Your task to perform on an android device: turn on airplane mode Image 0: 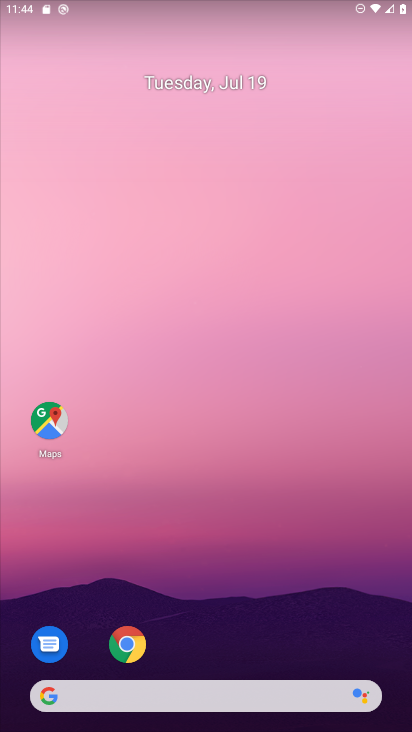
Step 0: drag from (282, 284) to (300, 224)
Your task to perform on an android device: turn on airplane mode Image 1: 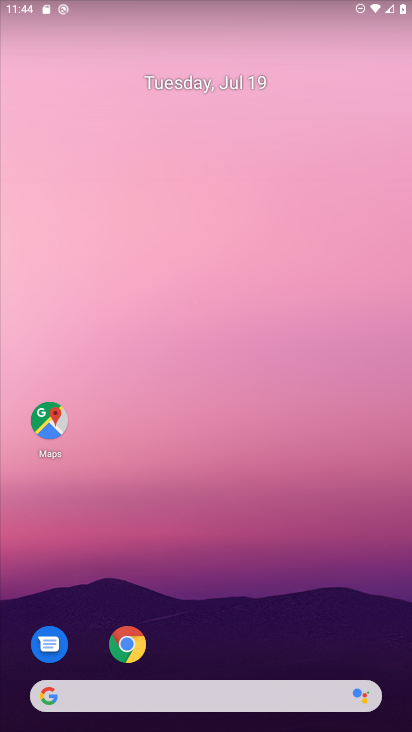
Step 1: drag from (15, 695) to (257, 78)
Your task to perform on an android device: turn on airplane mode Image 2: 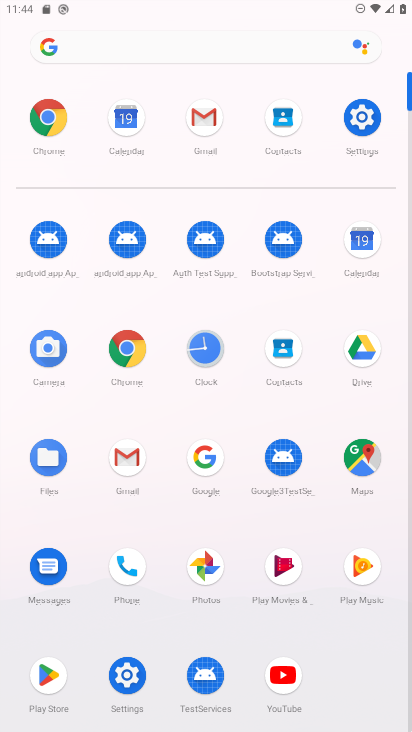
Step 2: click (123, 684)
Your task to perform on an android device: turn on airplane mode Image 3: 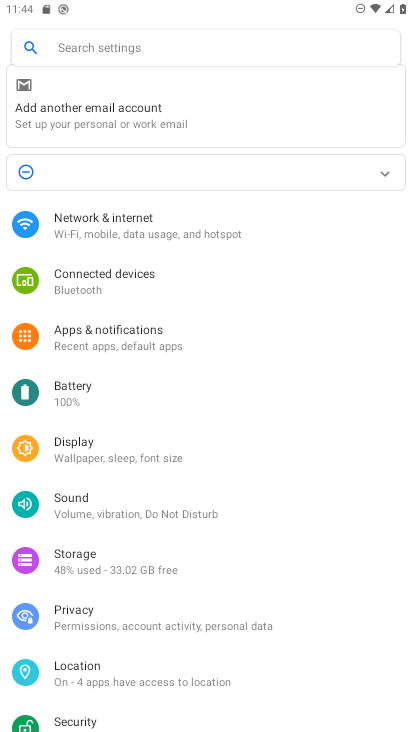
Step 3: click (145, 209)
Your task to perform on an android device: turn on airplane mode Image 4: 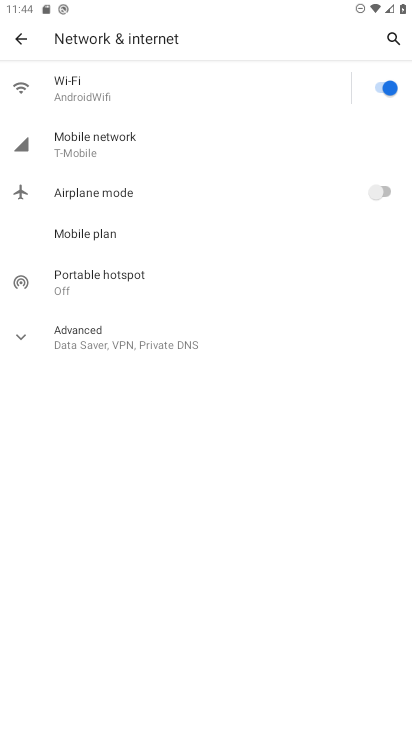
Step 4: click (384, 183)
Your task to perform on an android device: turn on airplane mode Image 5: 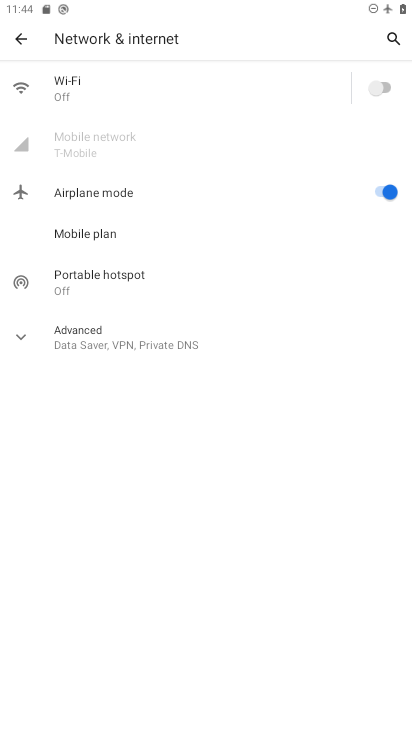
Step 5: task complete